Your task to perform on an android device: Go to ESPN.com Image 0: 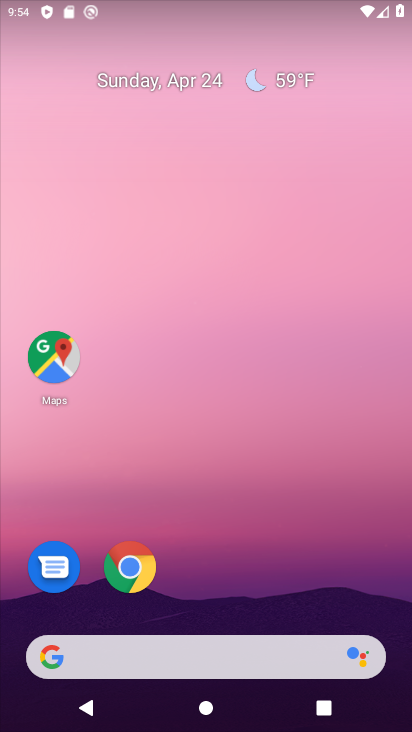
Step 0: click (135, 565)
Your task to perform on an android device: Go to ESPN.com Image 1: 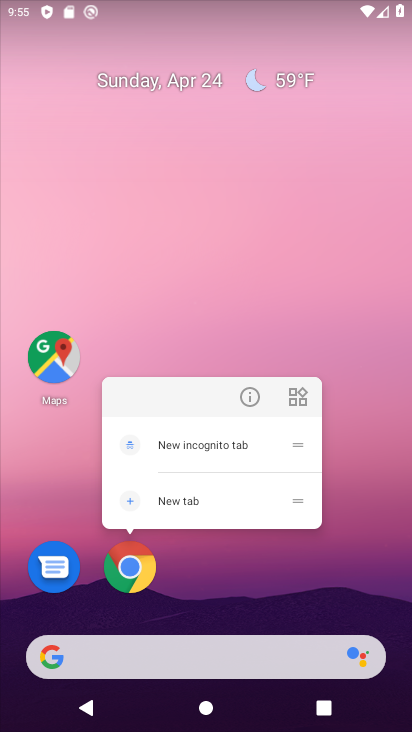
Step 1: click (124, 560)
Your task to perform on an android device: Go to ESPN.com Image 2: 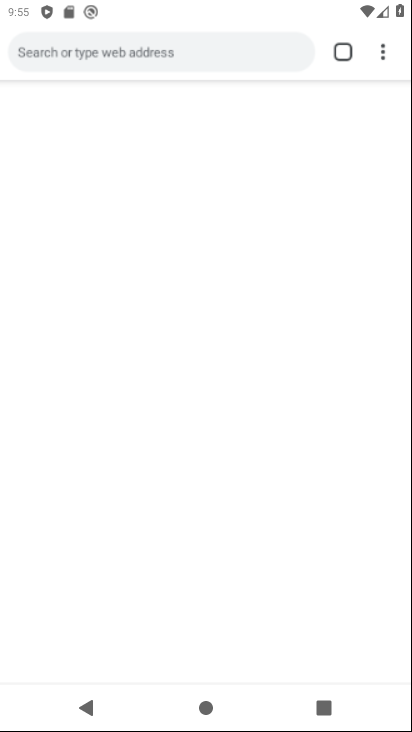
Step 2: click (124, 560)
Your task to perform on an android device: Go to ESPN.com Image 3: 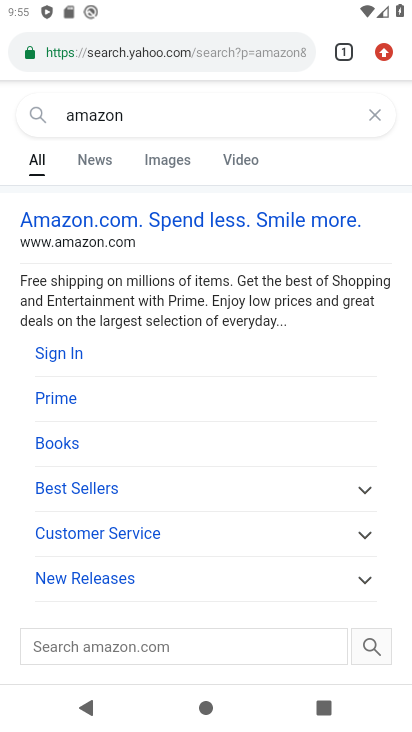
Step 3: click (301, 46)
Your task to perform on an android device: Go to ESPN.com Image 4: 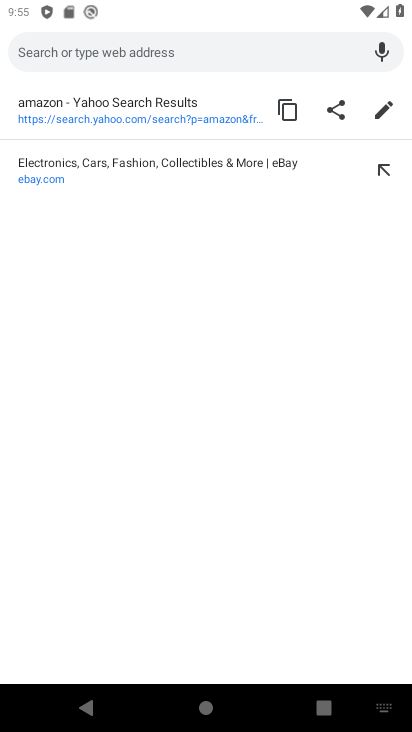
Step 4: type "ESPN.com"
Your task to perform on an android device: Go to ESPN.com Image 5: 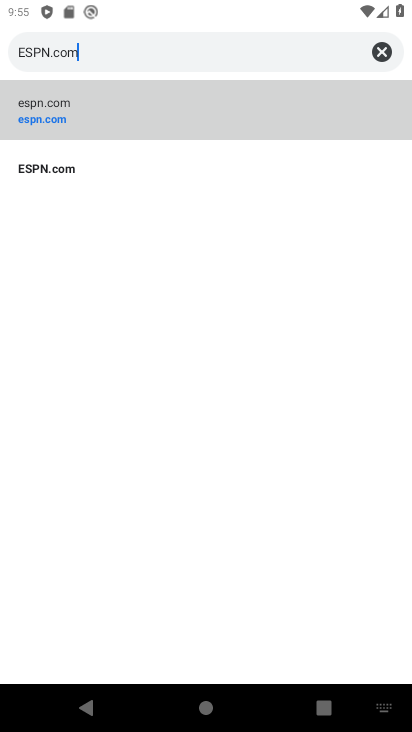
Step 5: click (50, 166)
Your task to perform on an android device: Go to ESPN.com Image 6: 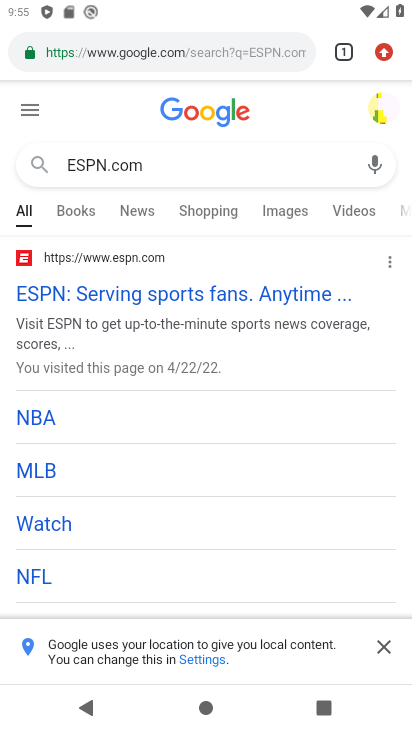
Step 6: task complete